Your task to perform on an android device: make emails show in primary in the gmail app Image 0: 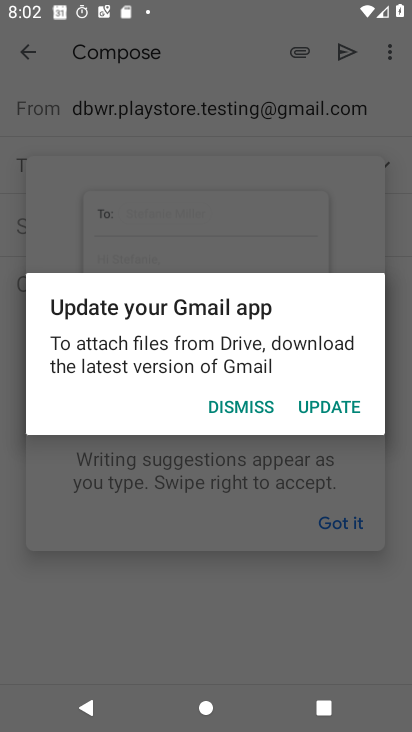
Step 0: press home button
Your task to perform on an android device: make emails show in primary in the gmail app Image 1: 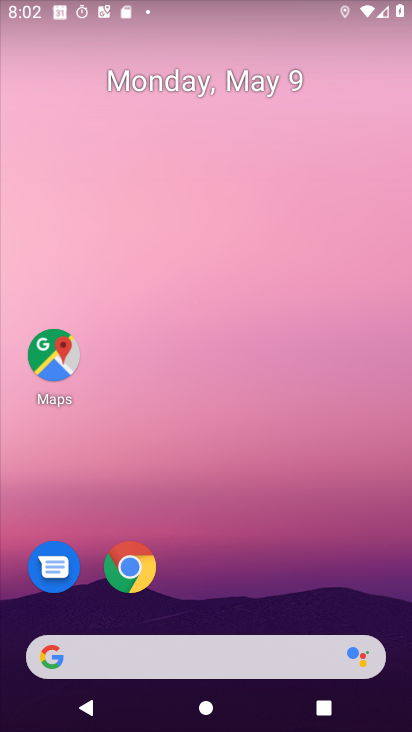
Step 1: drag from (316, 620) to (305, 26)
Your task to perform on an android device: make emails show in primary in the gmail app Image 2: 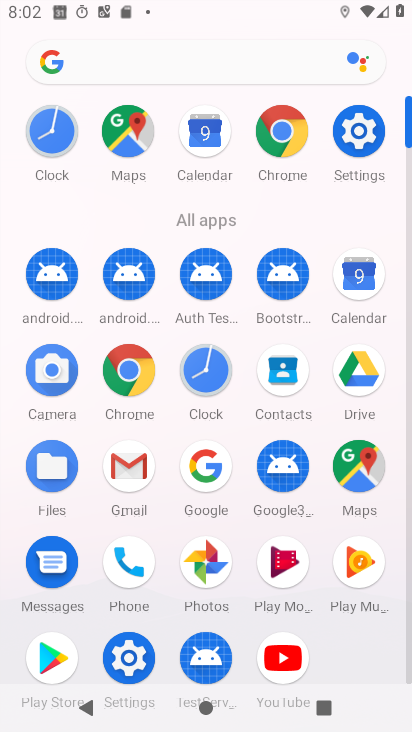
Step 2: click (136, 476)
Your task to perform on an android device: make emails show in primary in the gmail app Image 3: 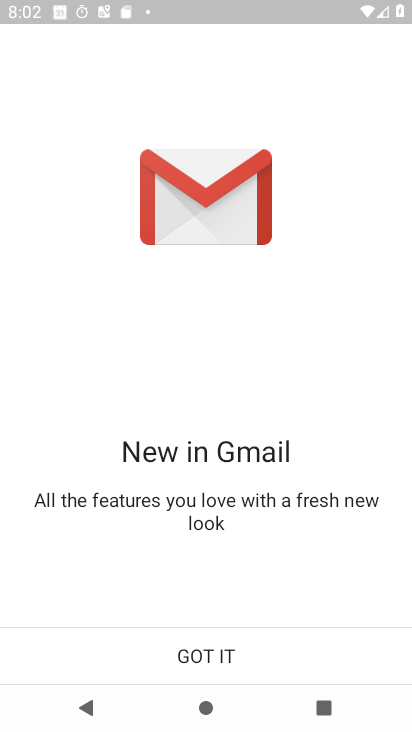
Step 3: click (287, 654)
Your task to perform on an android device: make emails show in primary in the gmail app Image 4: 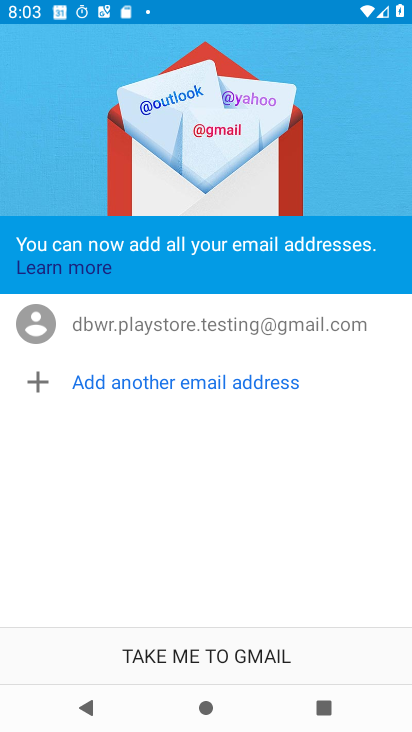
Step 4: click (285, 652)
Your task to perform on an android device: make emails show in primary in the gmail app Image 5: 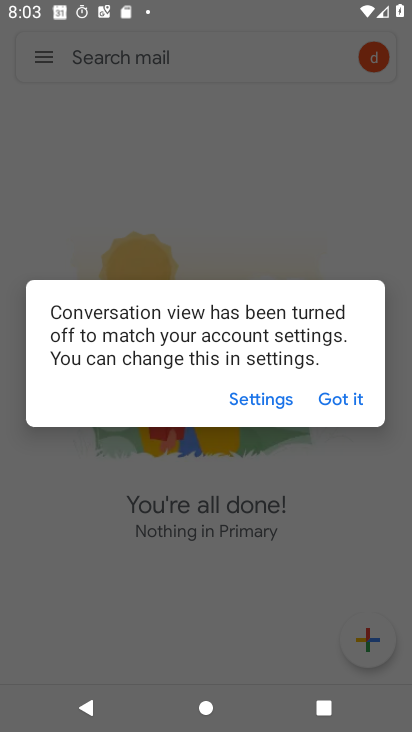
Step 5: click (325, 399)
Your task to perform on an android device: make emails show in primary in the gmail app Image 6: 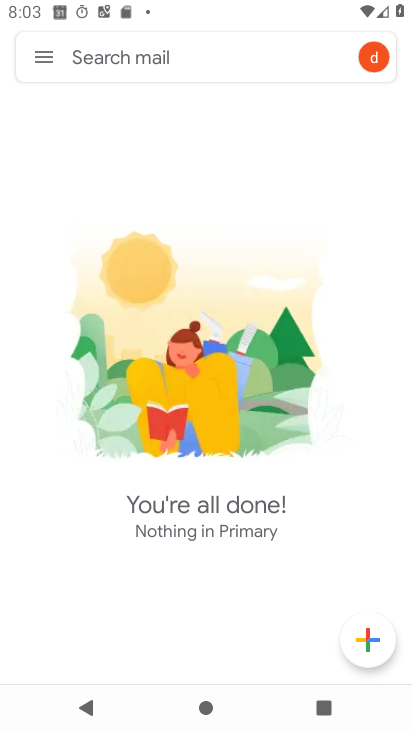
Step 6: click (43, 63)
Your task to perform on an android device: make emails show in primary in the gmail app Image 7: 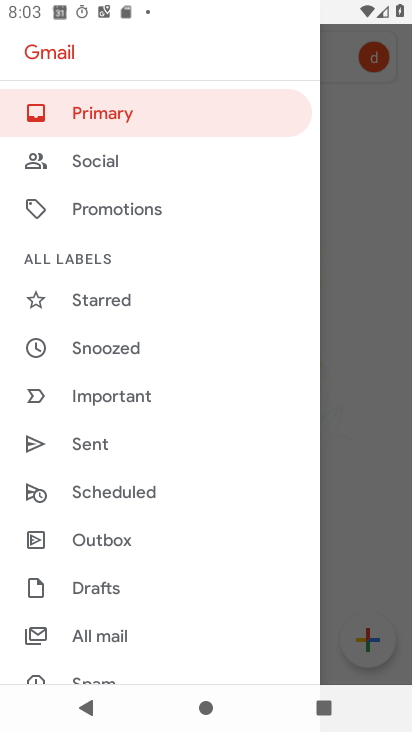
Step 7: drag from (143, 613) to (158, 158)
Your task to perform on an android device: make emails show in primary in the gmail app Image 8: 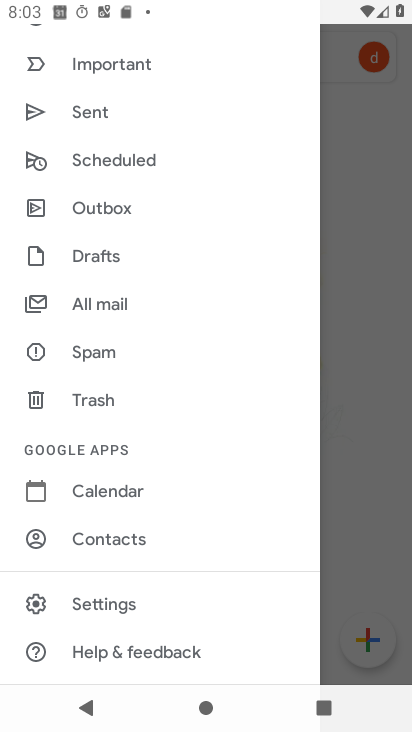
Step 8: click (155, 609)
Your task to perform on an android device: make emails show in primary in the gmail app Image 9: 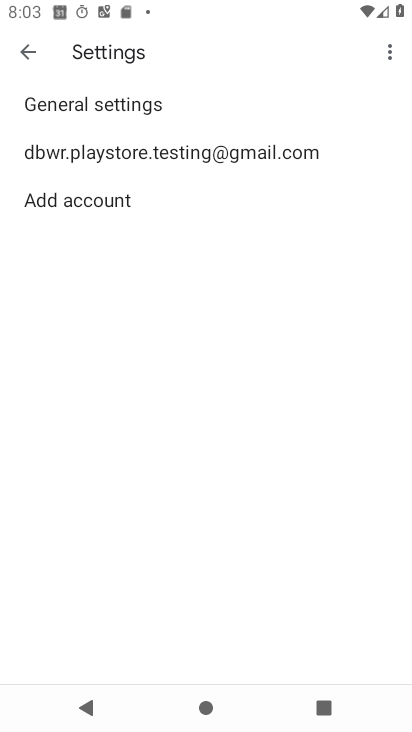
Step 9: click (235, 156)
Your task to perform on an android device: make emails show in primary in the gmail app Image 10: 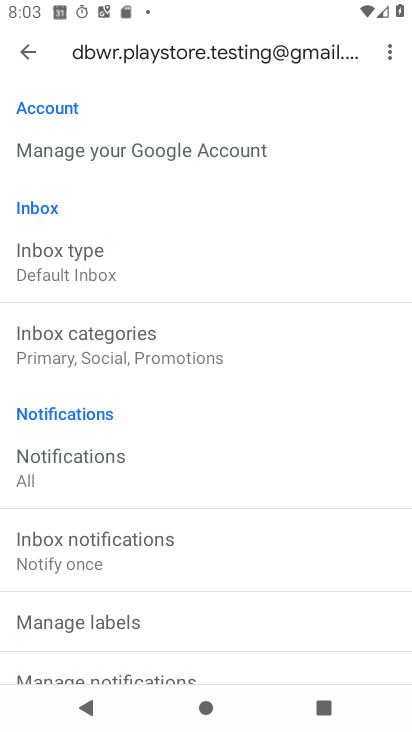
Step 10: drag from (152, 581) to (152, 509)
Your task to perform on an android device: make emails show in primary in the gmail app Image 11: 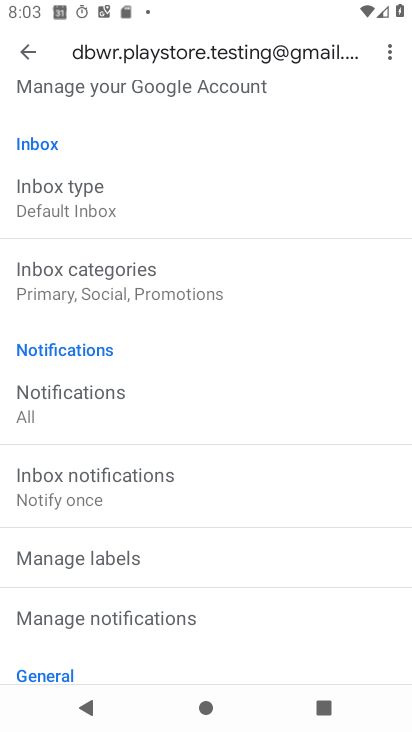
Step 11: click (80, 200)
Your task to perform on an android device: make emails show in primary in the gmail app Image 12: 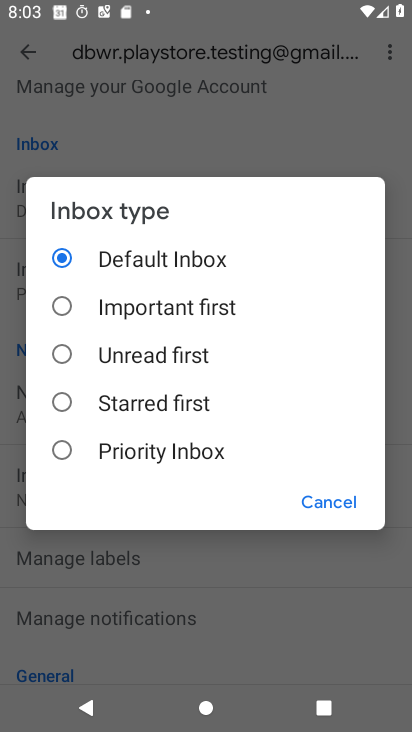
Step 12: click (149, 262)
Your task to perform on an android device: make emails show in primary in the gmail app Image 13: 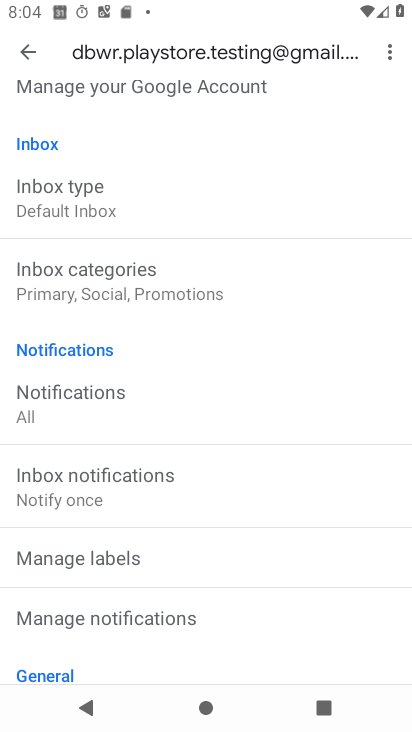
Step 13: task complete